Your task to perform on an android device: create a new album in the google photos Image 0: 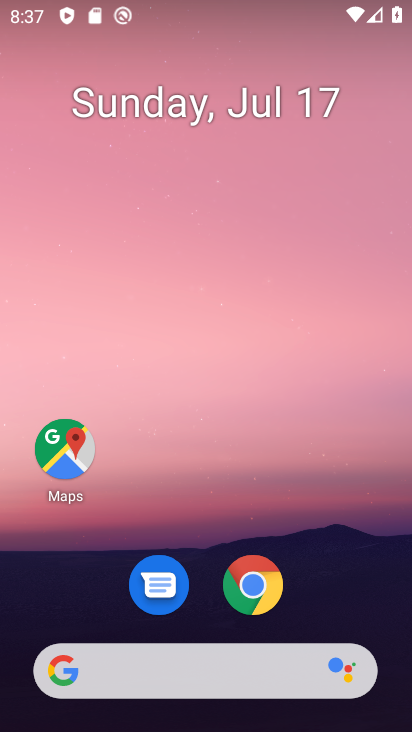
Step 0: drag from (227, 690) to (265, 231)
Your task to perform on an android device: create a new album in the google photos Image 1: 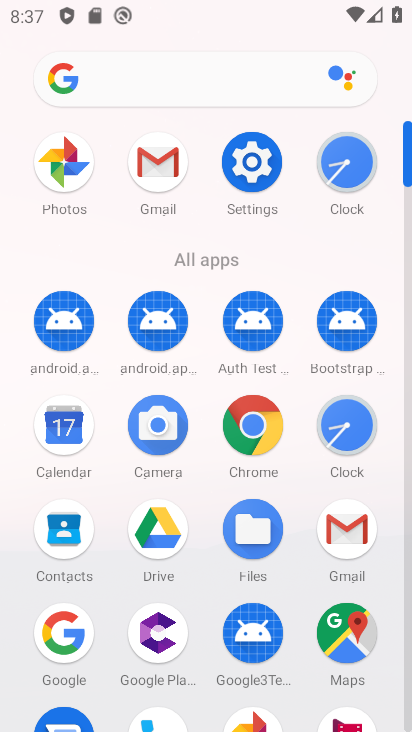
Step 1: click (67, 162)
Your task to perform on an android device: create a new album in the google photos Image 2: 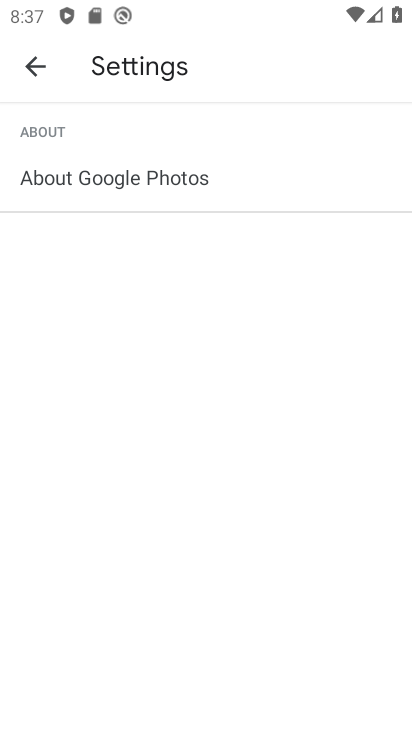
Step 2: click (35, 68)
Your task to perform on an android device: create a new album in the google photos Image 3: 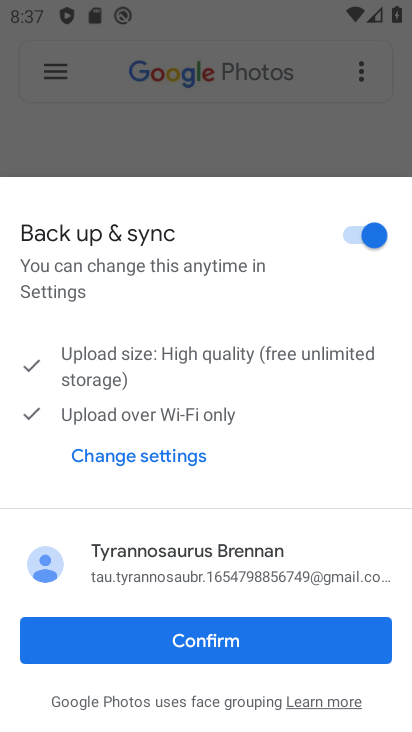
Step 3: click (208, 642)
Your task to perform on an android device: create a new album in the google photos Image 4: 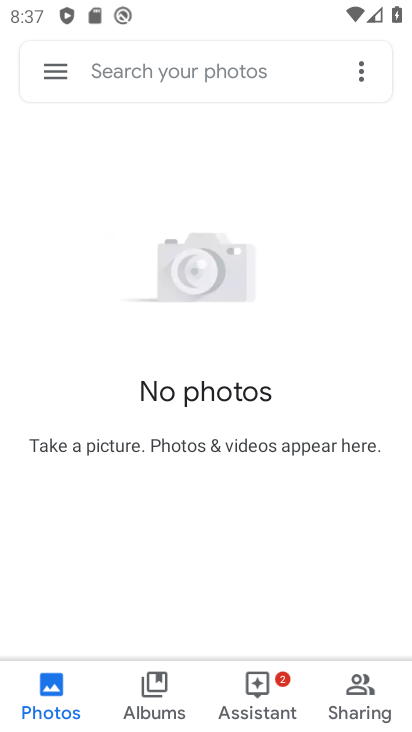
Step 4: click (139, 710)
Your task to perform on an android device: create a new album in the google photos Image 5: 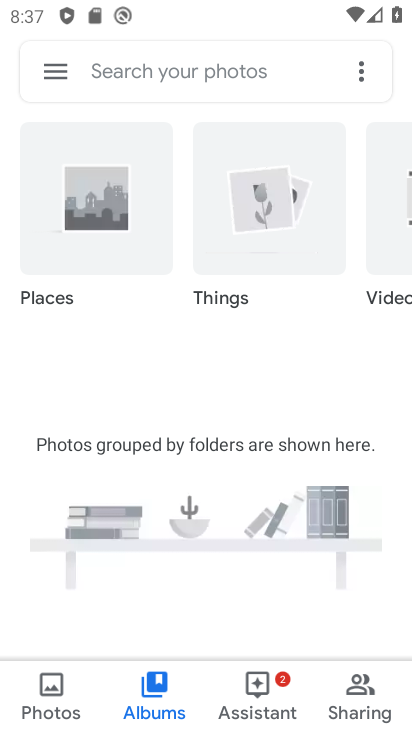
Step 5: task complete